Your task to perform on an android device: choose inbox layout in the gmail app Image 0: 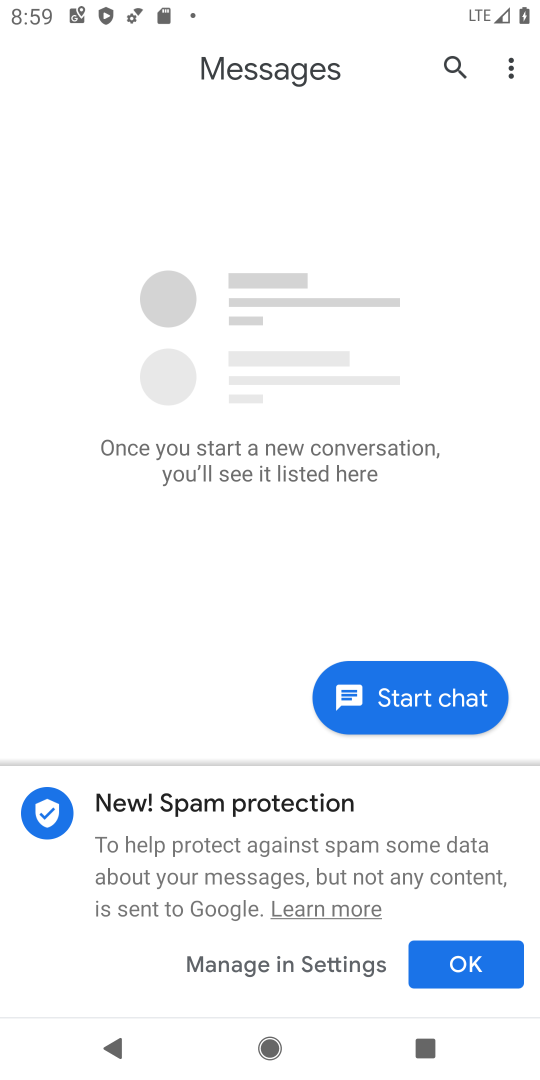
Step 0: press home button
Your task to perform on an android device: choose inbox layout in the gmail app Image 1: 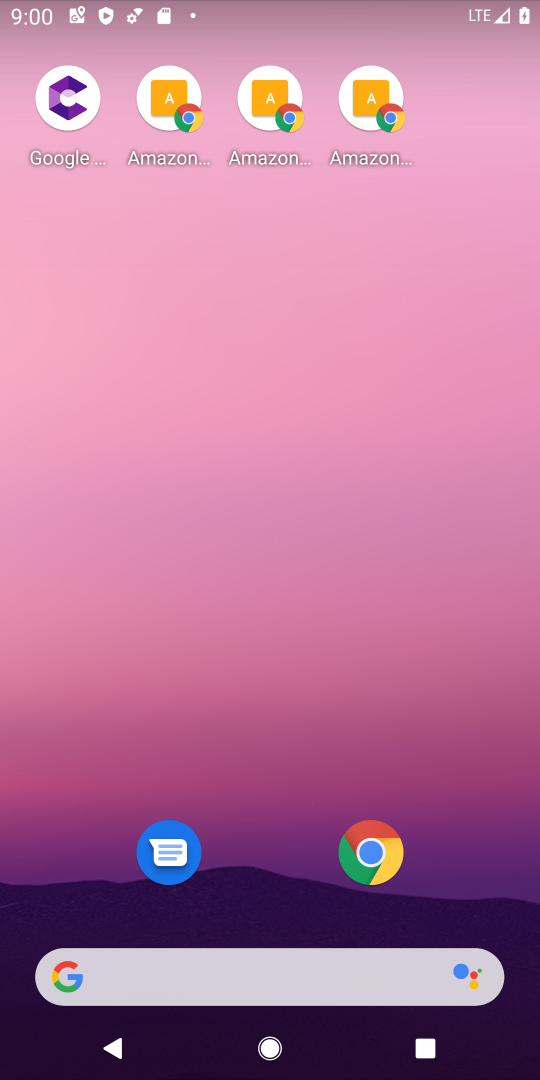
Step 1: drag from (210, 971) to (265, 166)
Your task to perform on an android device: choose inbox layout in the gmail app Image 2: 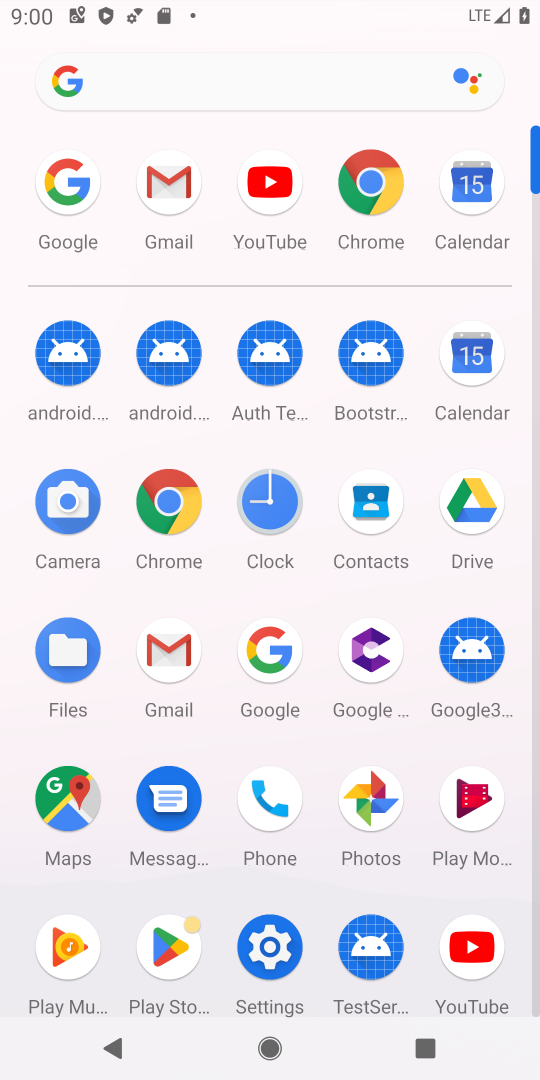
Step 2: click (168, 184)
Your task to perform on an android device: choose inbox layout in the gmail app Image 3: 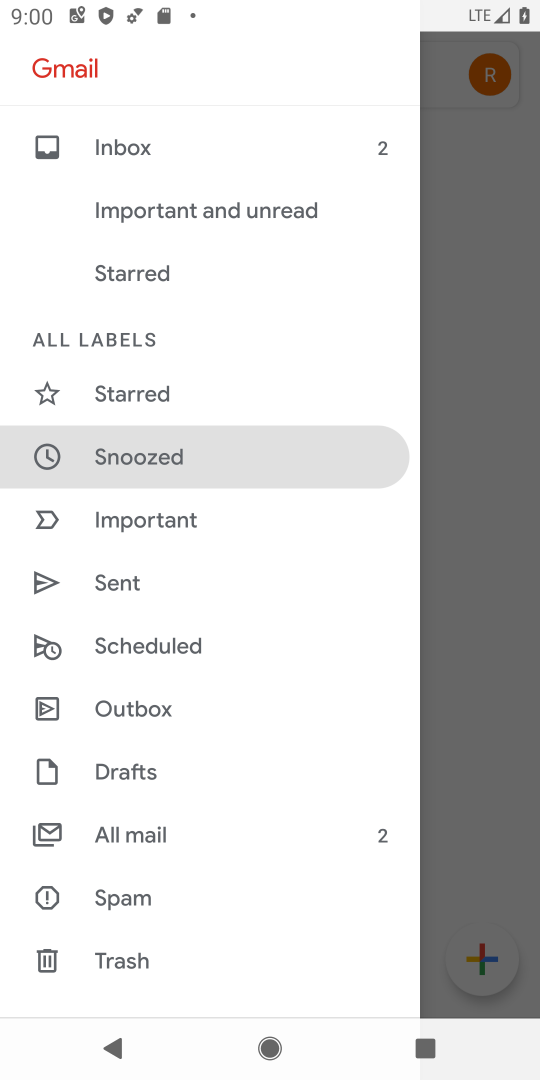
Step 3: drag from (149, 668) to (254, 508)
Your task to perform on an android device: choose inbox layout in the gmail app Image 4: 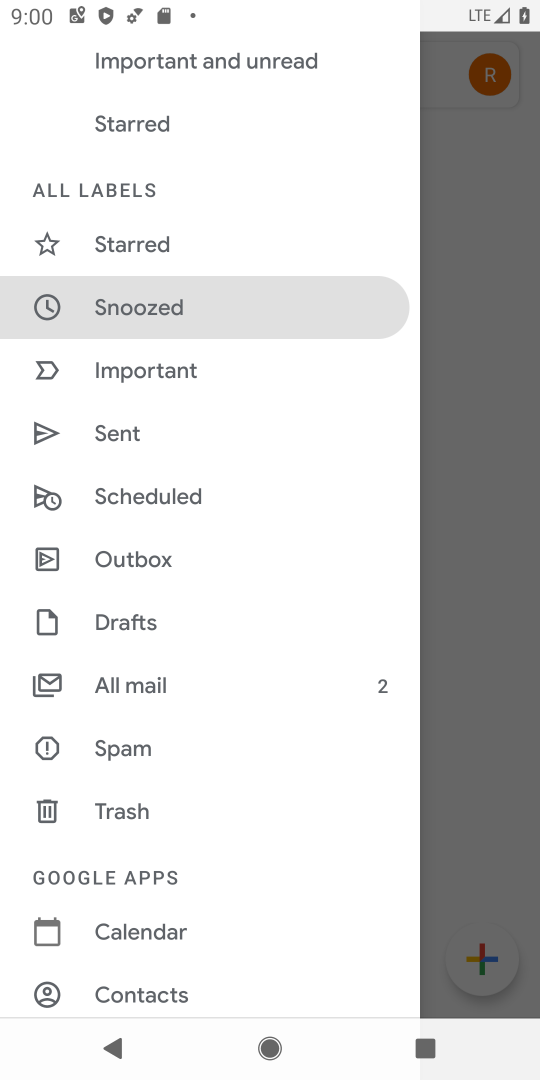
Step 4: drag from (177, 768) to (318, 590)
Your task to perform on an android device: choose inbox layout in the gmail app Image 5: 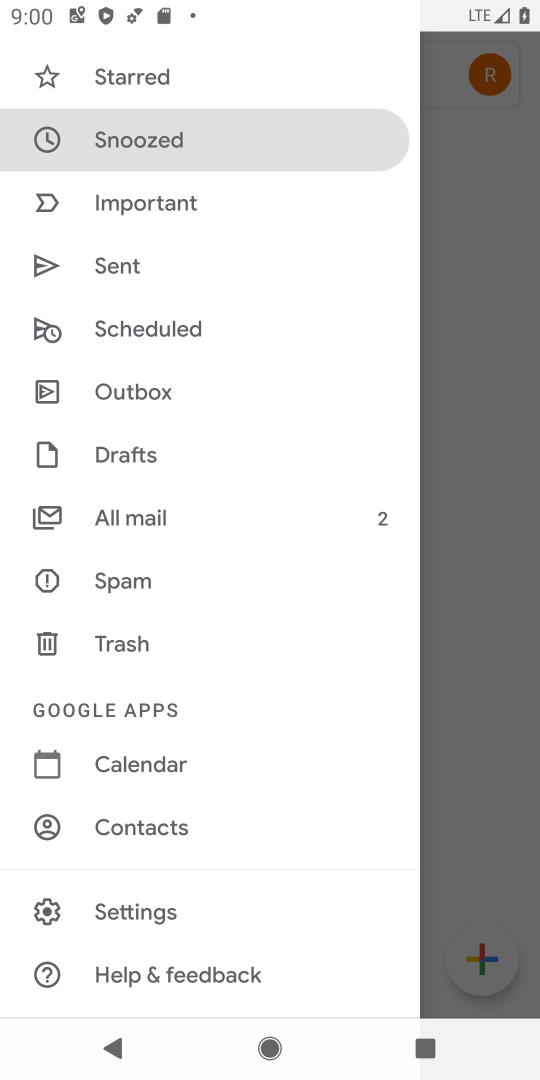
Step 5: click (154, 912)
Your task to perform on an android device: choose inbox layout in the gmail app Image 6: 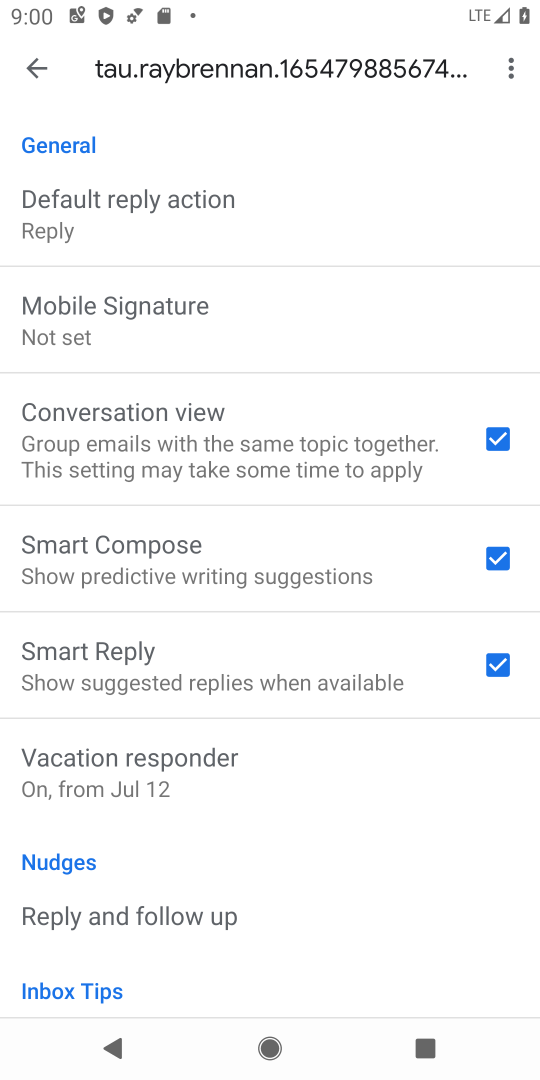
Step 6: drag from (142, 249) to (180, 465)
Your task to perform on an android device: choose inbox layout in the gmail app Image 7: 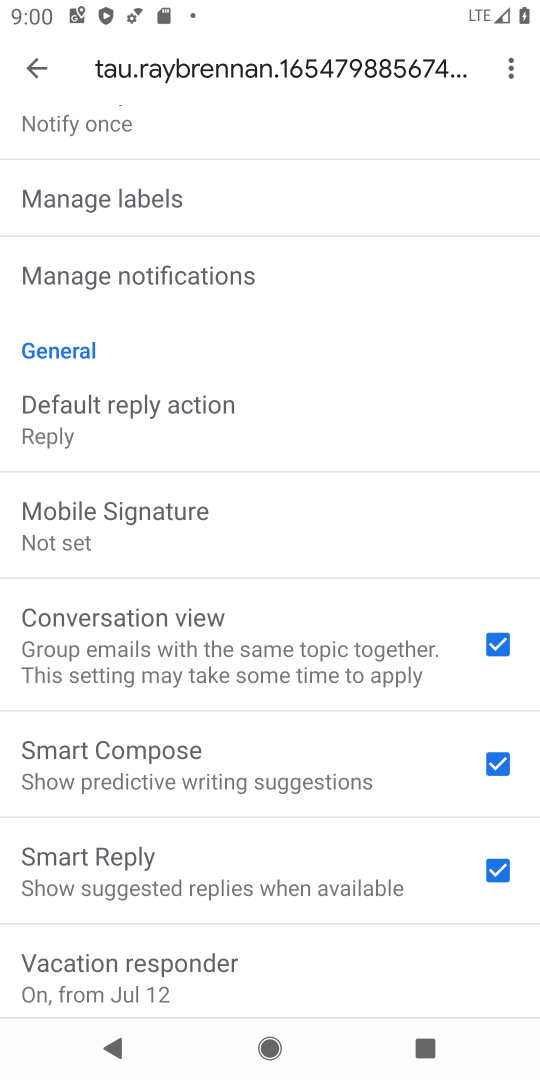
Step 7: drag from (286, 266) to (320, 496)
Your task to perform on an android device: choose inbox layout in the gmail app Image 8: 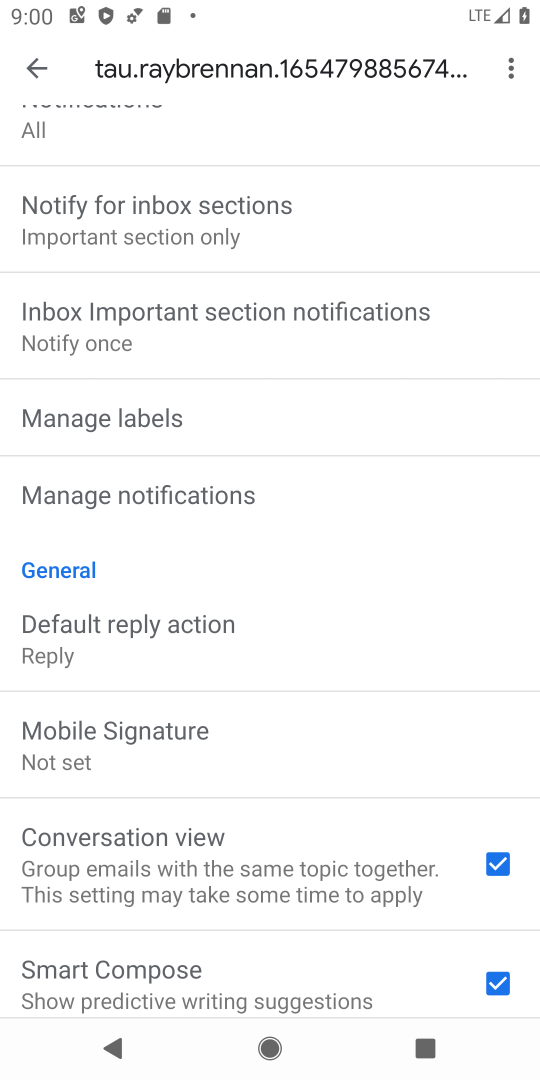
Step 8: drag from (249, 204) to (219, 491)
Your task to perform on an android device: choose inbox layout in the gmail app Image 9: 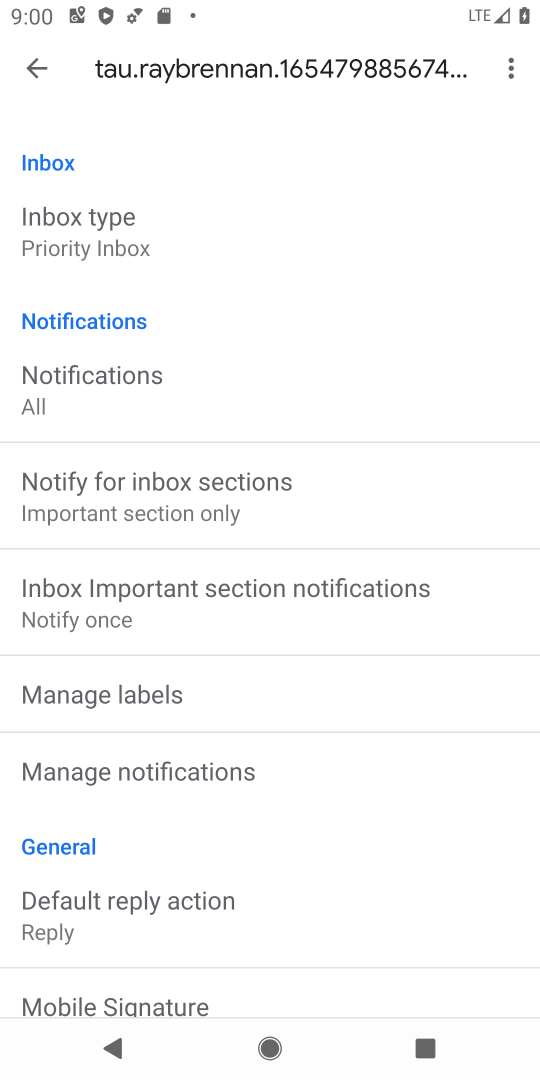
Step 9: click (131, 236)
Your task to perform on an android device: choose inbox layout in the gmail app Image 10: 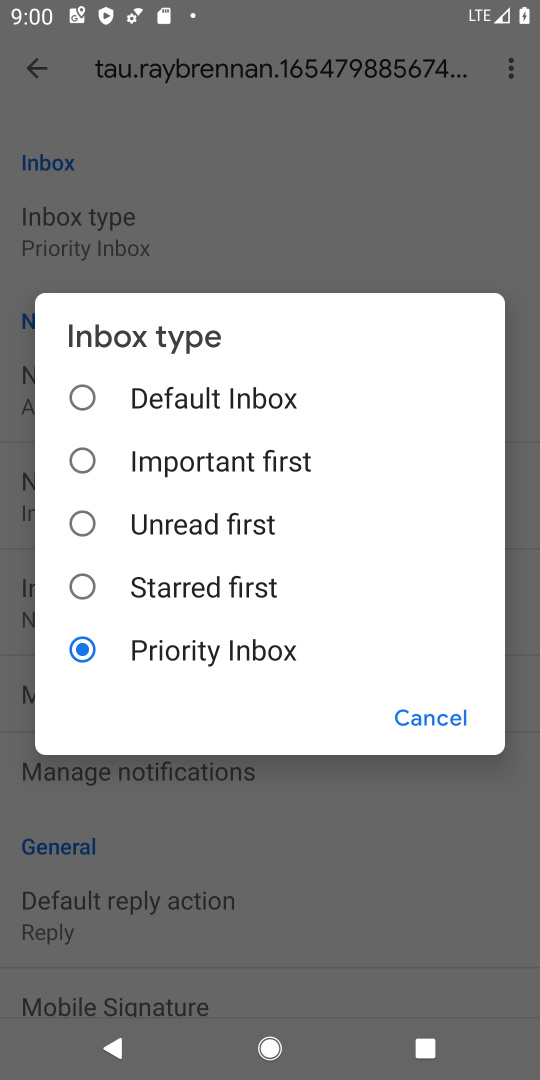
Step 10: click (86, 578)
Your task to perform on an android device: choose inbox layout in the gmail app Image 11: 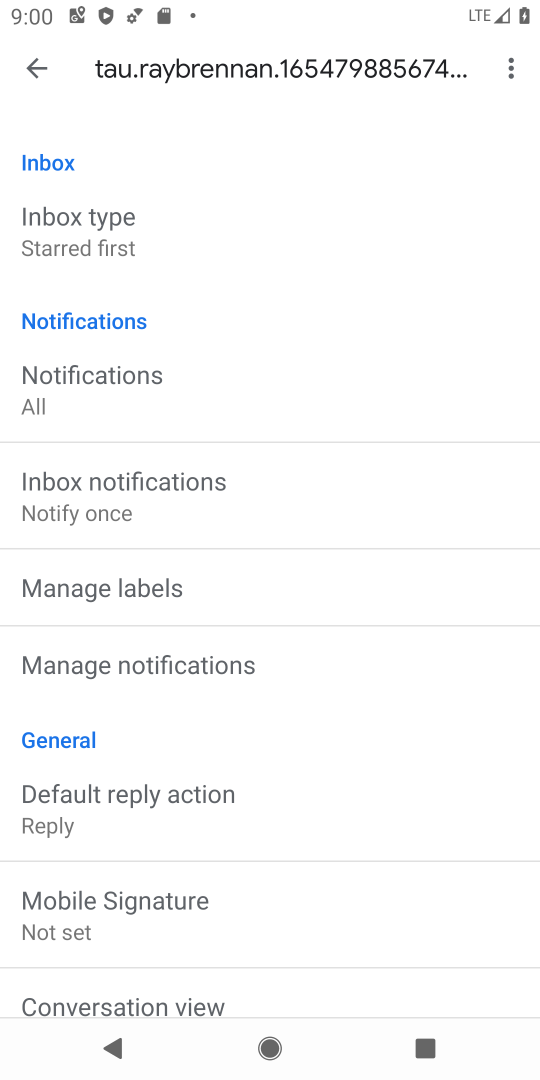
Step 11: task complete